Your task to perform on an android device: Go to CNN.com Image 0: 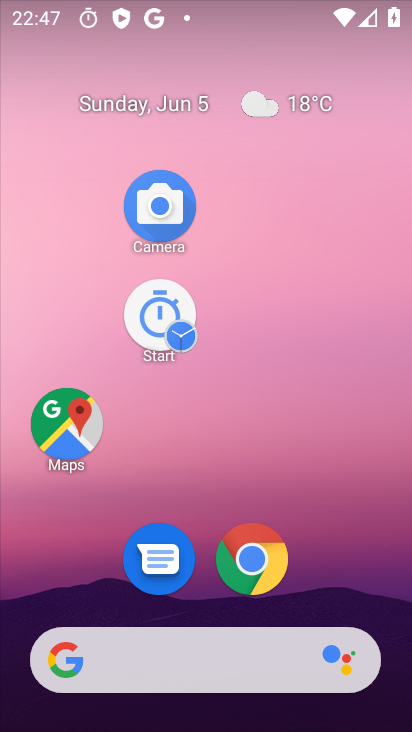
Step 0: drag from (251, 655) to (396, 716)
Your task to perform on an android device: Go to CNN.com Image 1: 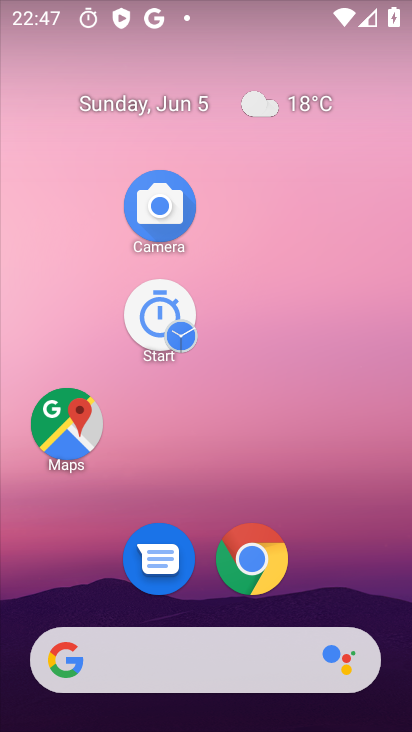
Step 1: drag from (204, 1) to (376, 270)
Your task to perform on an android device: Go to CNN.com Image 2: 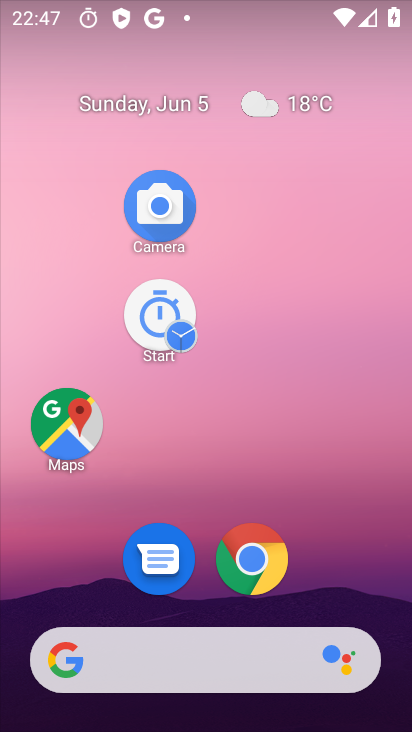
Step 2: drag from (266, 685) to (200, 260)
Your task to perform on an android device: Go to CNN.com Image 3: 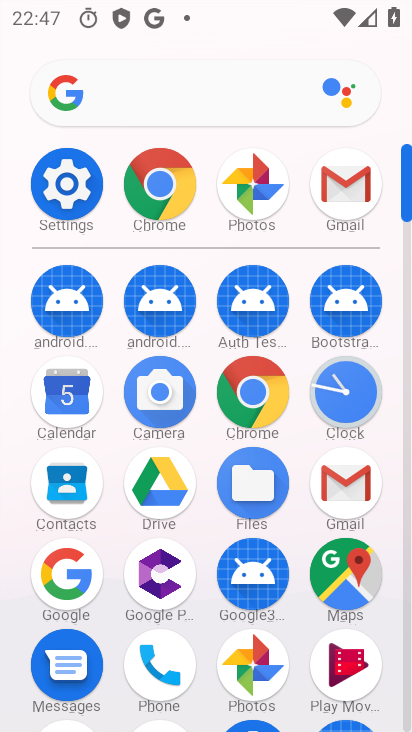
Step 3: click (150, 192)
Your task to perform on an android device: Go to CNN.com Image 4: 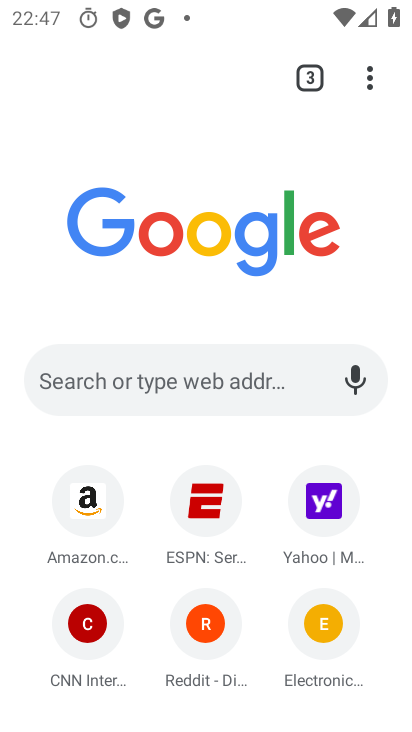
Step 4: click (81, 624)
Your task to perform on an android device: Go to CNN.com Image 5: 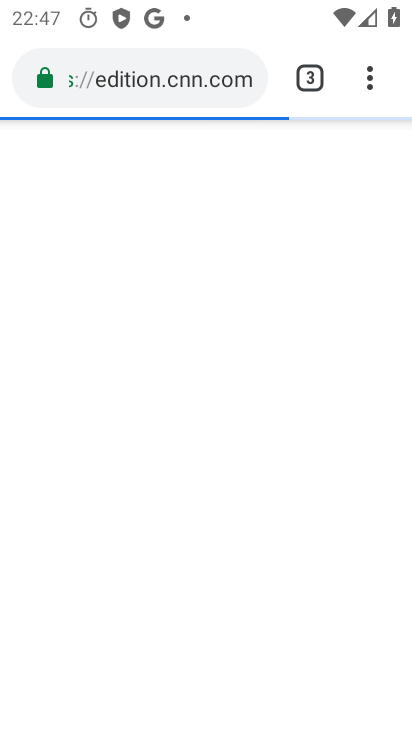
Step 5: task complete